Your task to perform on an android device: add a label to a message in the gmail app Image 0: 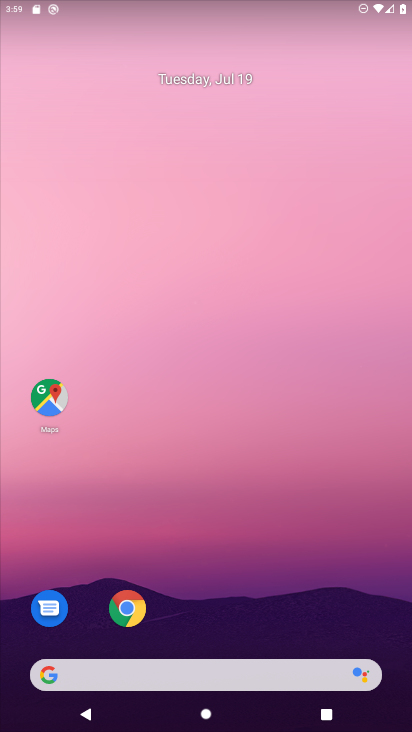
Step 0: drag from (299, 615) to (262, 118)
Your task to perform on an android device: add a label to a message in the gmail app Image 1: 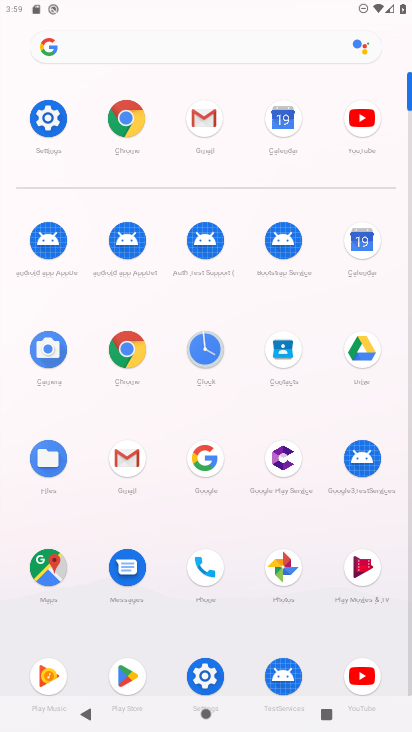
Step 1: click (205, 106)
Your task to perform on an android device: add a label to a message in the gmail app Image 2: 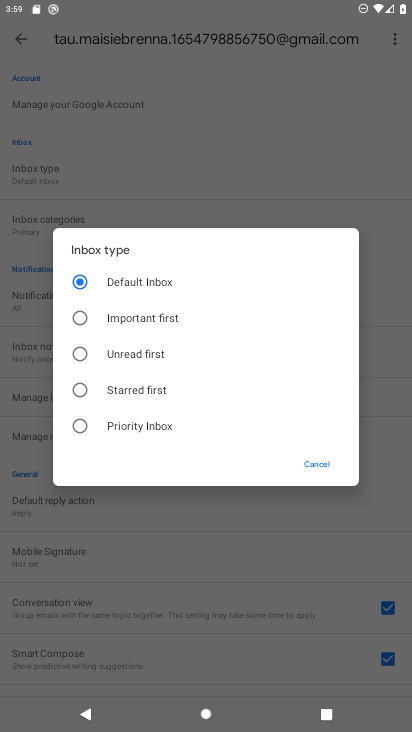
Step 2: click (327, 461)
Your task to perform on an android device: add a label to a message in the gmail app Image 3: 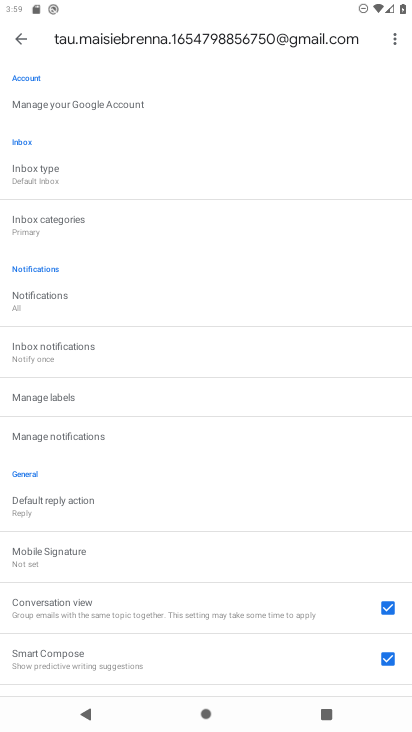
Step 3: click (17, 38)
Your task to perform on an android device: add a label to a message in the gmail app Image 4: 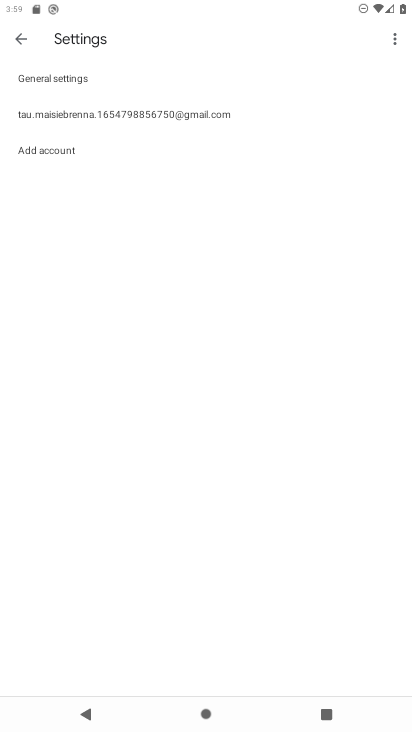
Step 4: click (17, 38)
Your task to perform on an android device: add a label to a message in the gmail app Image 5: 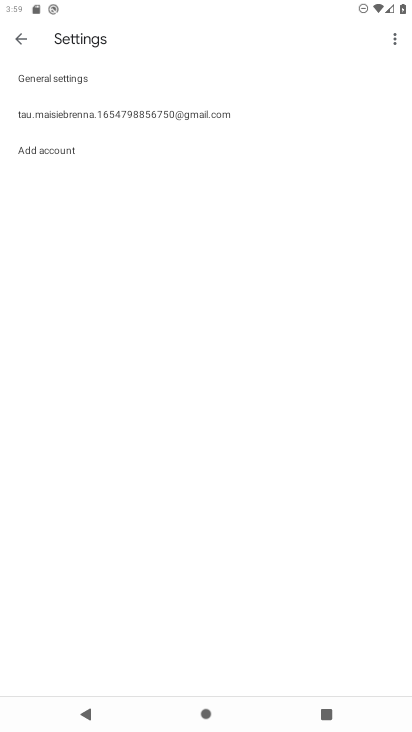
Step 5: click (23, 50)
Your task to perform on an android device: add a label to a message in the gmail app Image 6: 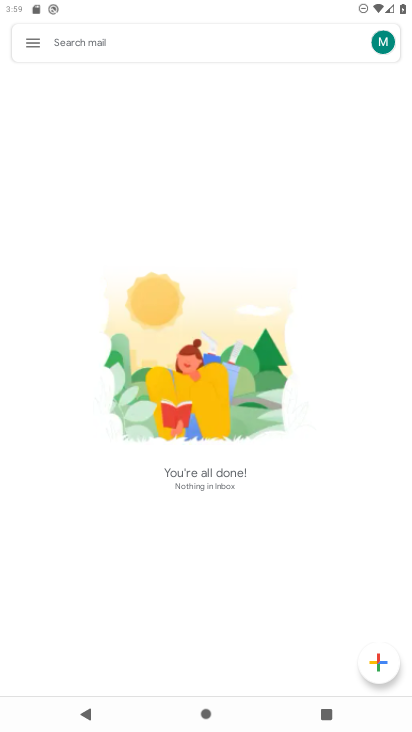
Step 6: click (24, 49)
Your task to perform on an android device: add a label to a message in the gmail app Image 7: 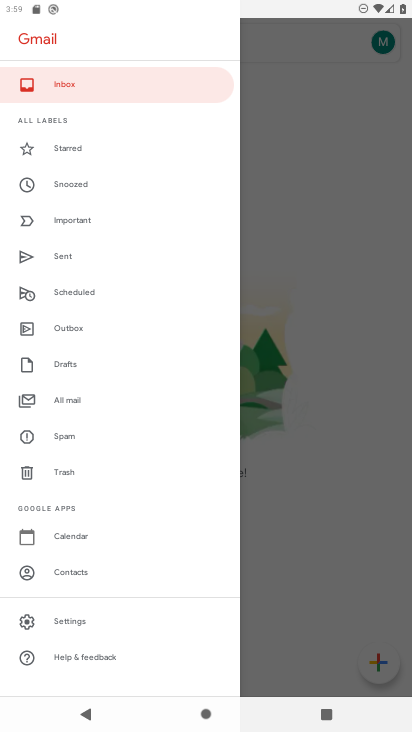
Step 7: click (74, 392)
Your task to perform on an android device: add a label to a message in the gmail app Image 8: 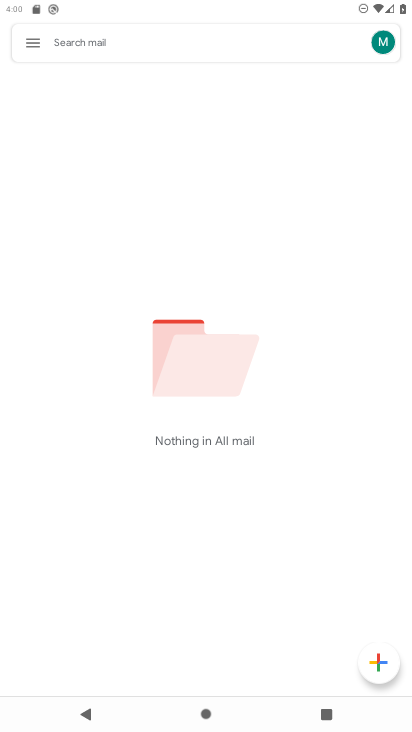
Step 8: task complete